Your task to perform on an android device: Find coffee shops on Maps Image 0: 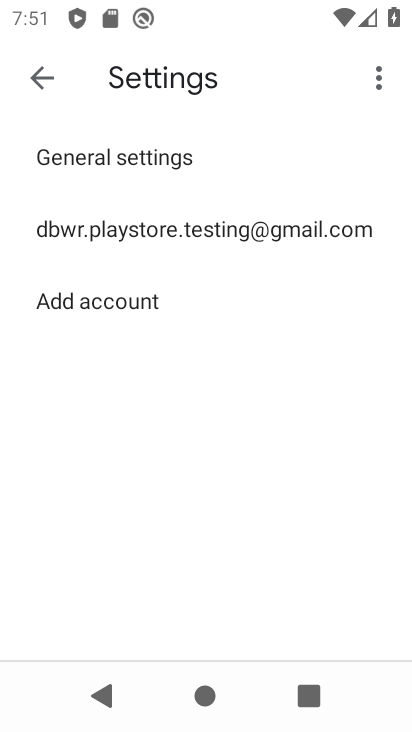
Step 0: drag from (225, 488) to (257, 260)
Your task to perform on an android device: Find coffee shops on Maps Image 1: 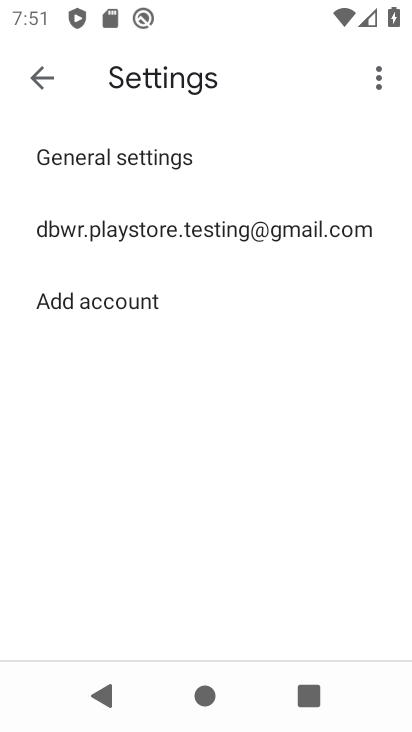
Step 1: press home button
Your task to perform on an android device: Find coffee shops on Maps Image 2: 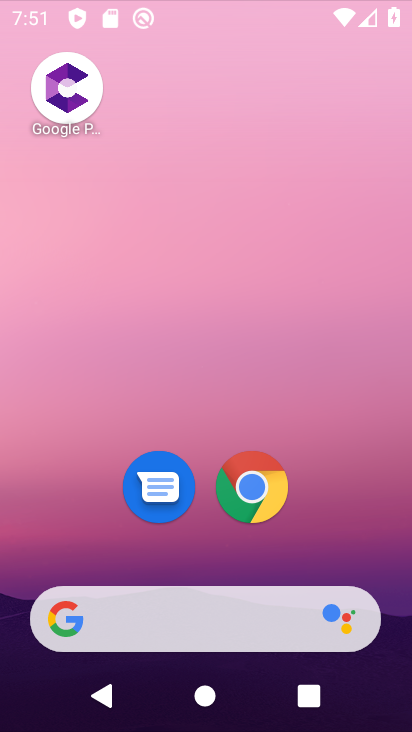
Step 2: drag from (228, 551) to (244, 95)
Your task to perform on an android device: Find coffee shops on Maps Image 3: 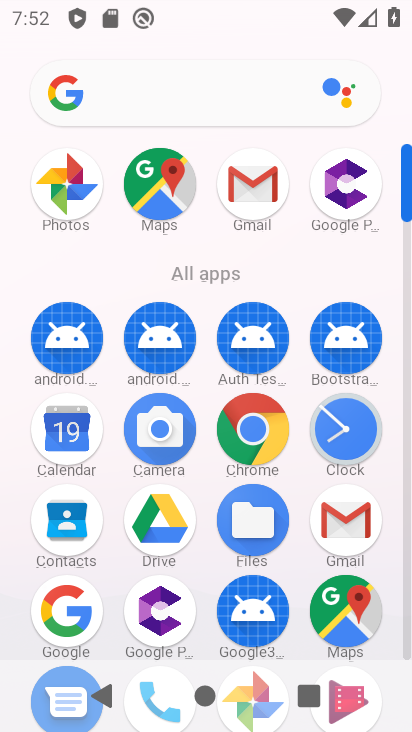
Step 3: click (152, 184)
Your task to perform on an android device: Find coffee shops on Maps Image 4: 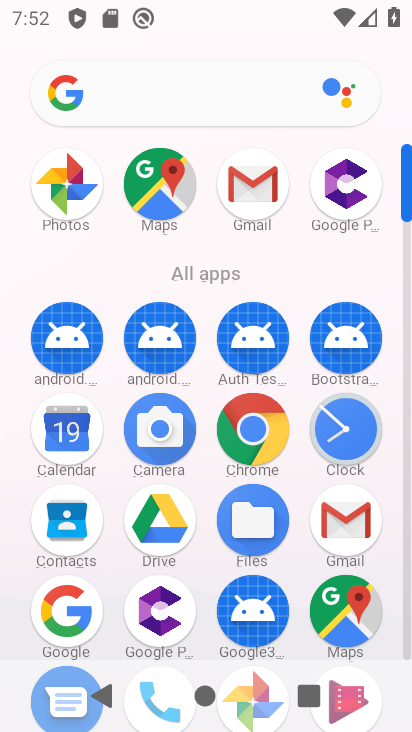
Step 4: click (152, 184)
Your task to perform on an android device: Find coffee shops on Maps Image 5: 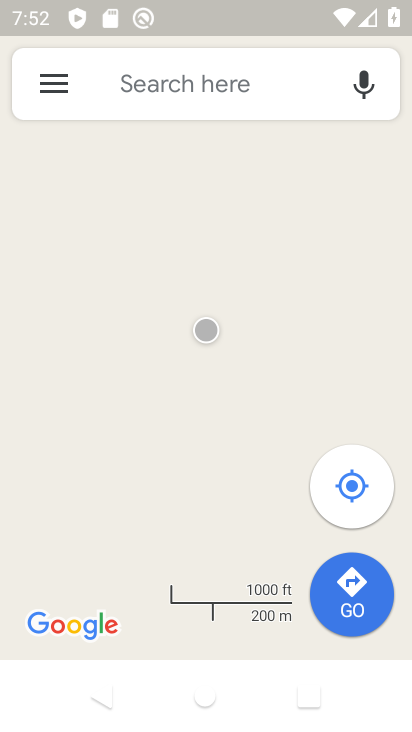
Step 5: click (201, 69)
Your task to perform on an android device: Find coffee shops on Maps Image 6: 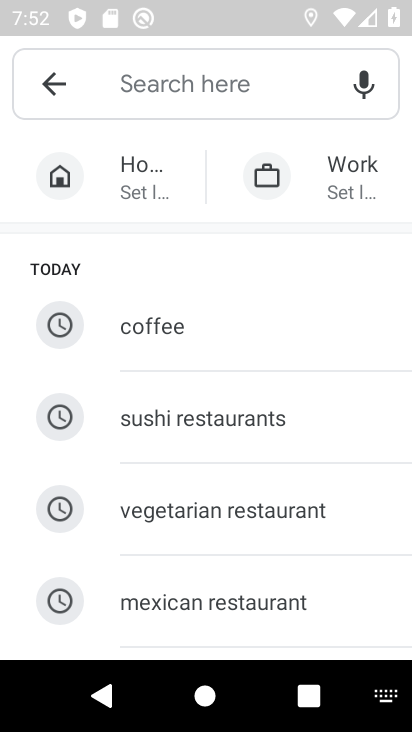
Step 6: click (173, 323)
Your task to perform on an android device: Find coffee shops on Maps Image 7: 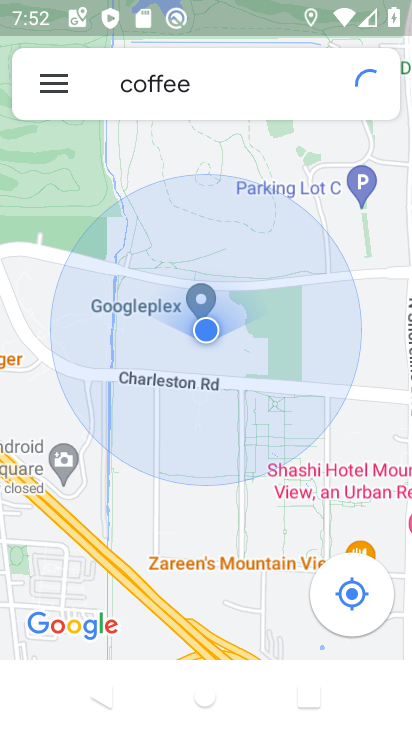
Step 7: task complete